Your task to perform on an android device: turn on priority inbox in the gmail app Image 0: 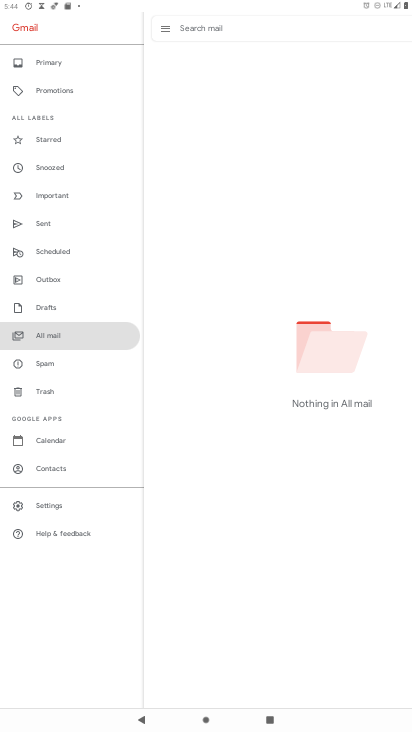
Step 0: press home button
Your task to perform on an android device: turn on priority inbox in the gmail app Image 1: 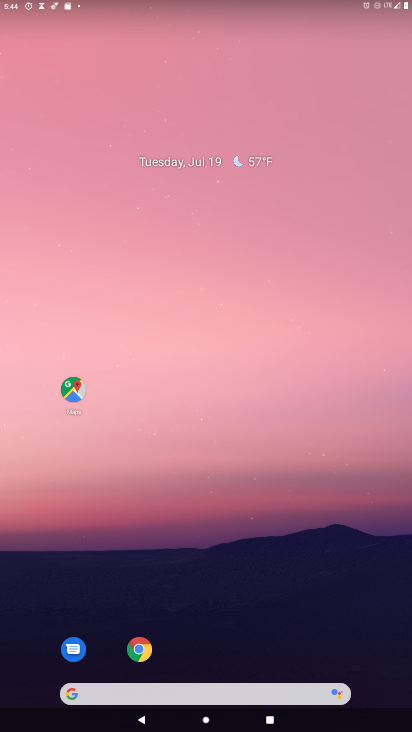
Step 1: drag from (214, 651) to (198, 272)
Your task to perform on an android device: turn on priority inbox in the gmail app Image 2: 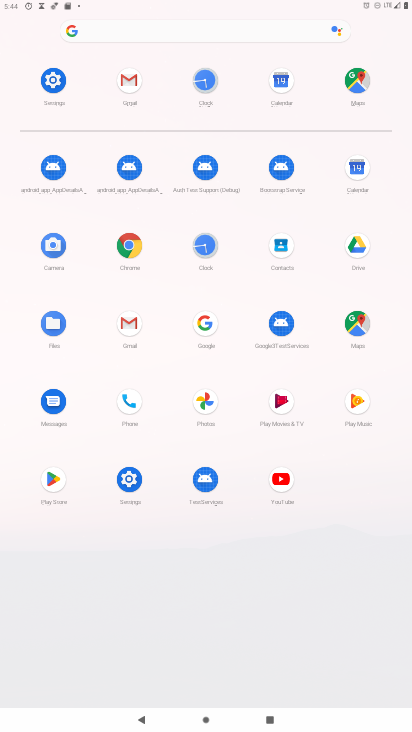
Step 2: click (133, 85)
Your task to perform on an android device: turn on priority inbox in the gmail app Image 3: 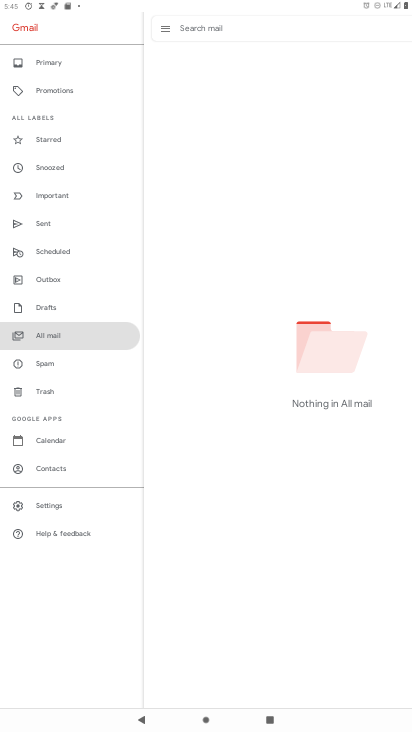
Step 3: click (44, 504)
Your task to perform on an android device: turn on priority inbox in the gmail app Image 4: 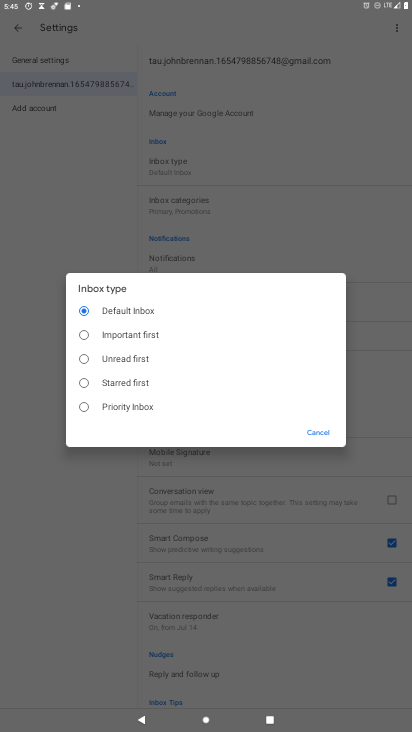
Step 4: click (318, 436)
Your task to perform on an android device: turn on priority inbox in the gmail app Image 5: 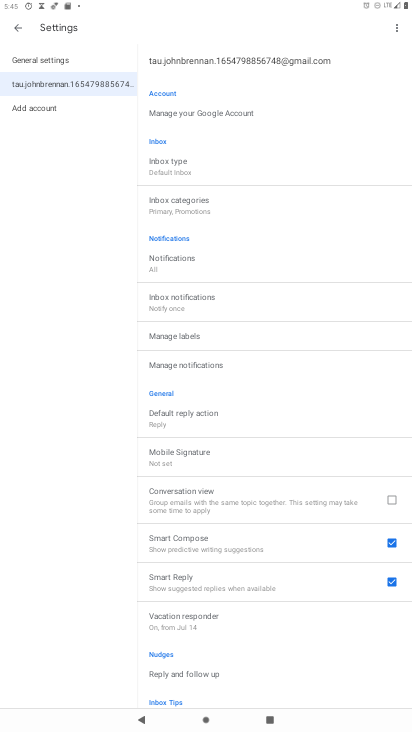
Step 5: click (188, 158)
Your task to perform on an android device: turn on priority inbox in the gmail app Image 6: 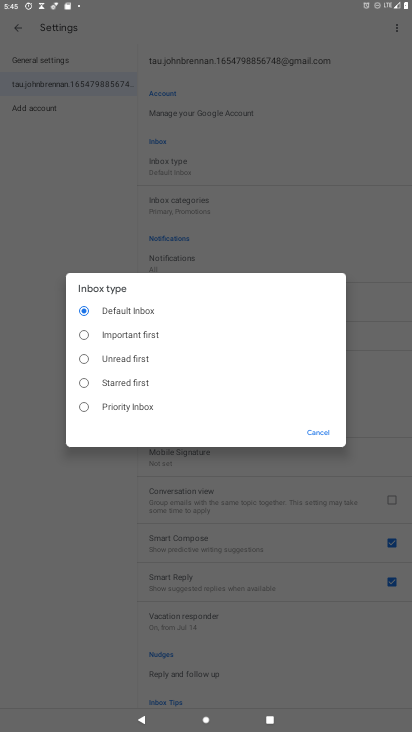
Step 6: click (84, 412)
Your task to perform on an android device: turn on priority inbox in the gmail app Image 7: 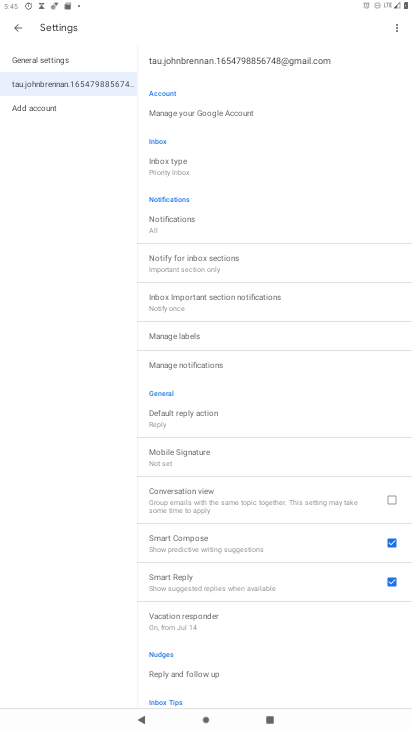
Step 7: task complete